Your task to perform on an android device: Search for sushi restaurants on Maps Image 0: 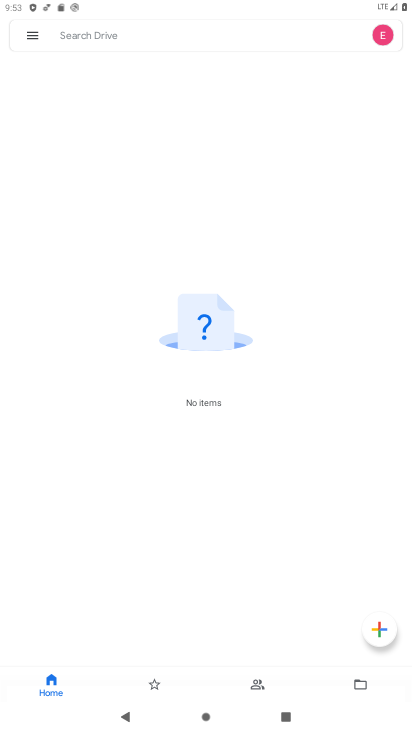
Step 0: press home button
Your task to perform on an android device: Search for sushi restaurants on Maps Image 1: 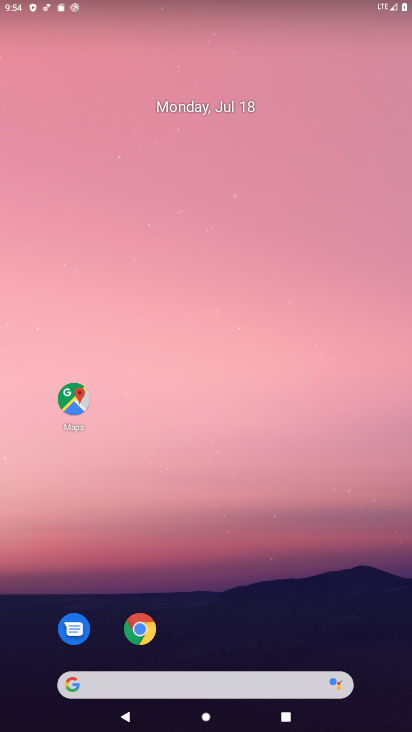
Step 1: click (76, 398)
Your task to perform on an android device: Search for sushi restaurants on Maps Image 2: 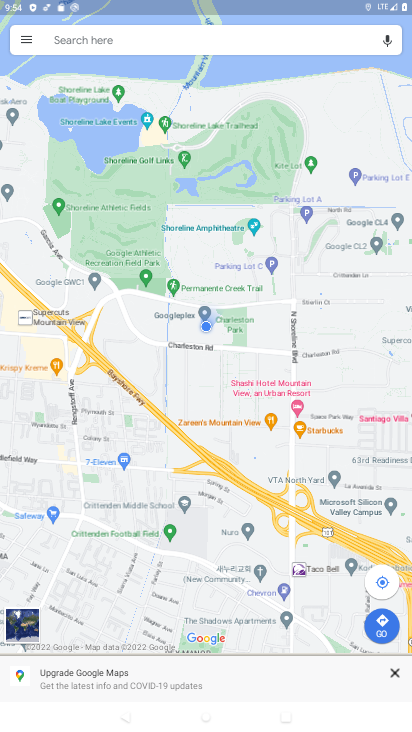
Step 2: click (83, 35)
Your task to perform on an android device: Search for sushi restaurants on Maps Image 3: 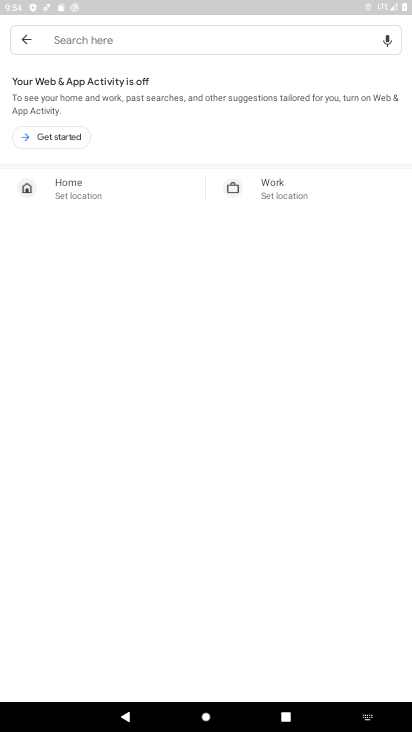
Step 3: type "sushi restaurants"
Your task to perform on an android device: Search for sushi restaurants on Maps Image 4: 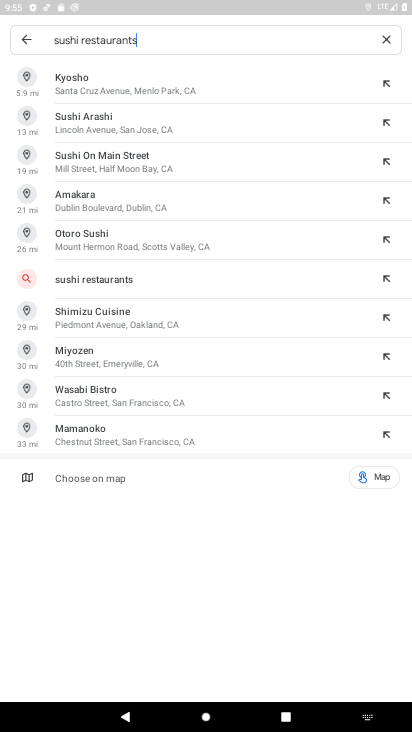
Step 4: click (86, 281)
Your task to perform on an android device: Search for sushi restaurants on Maps Image 5: 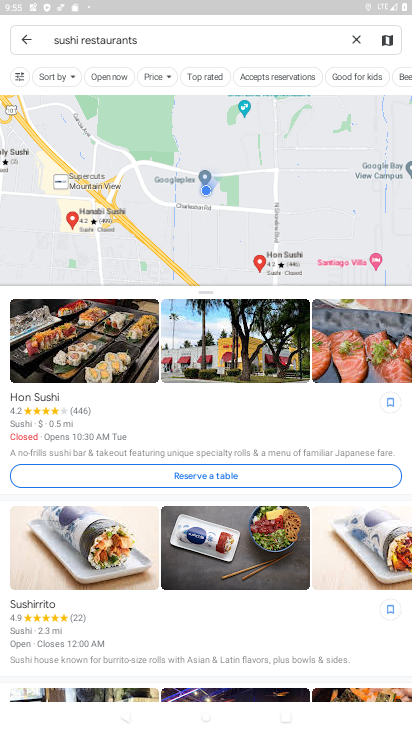
Step 5: task complete